Your task to perform on an android device: Open accessibility settings Image 0: 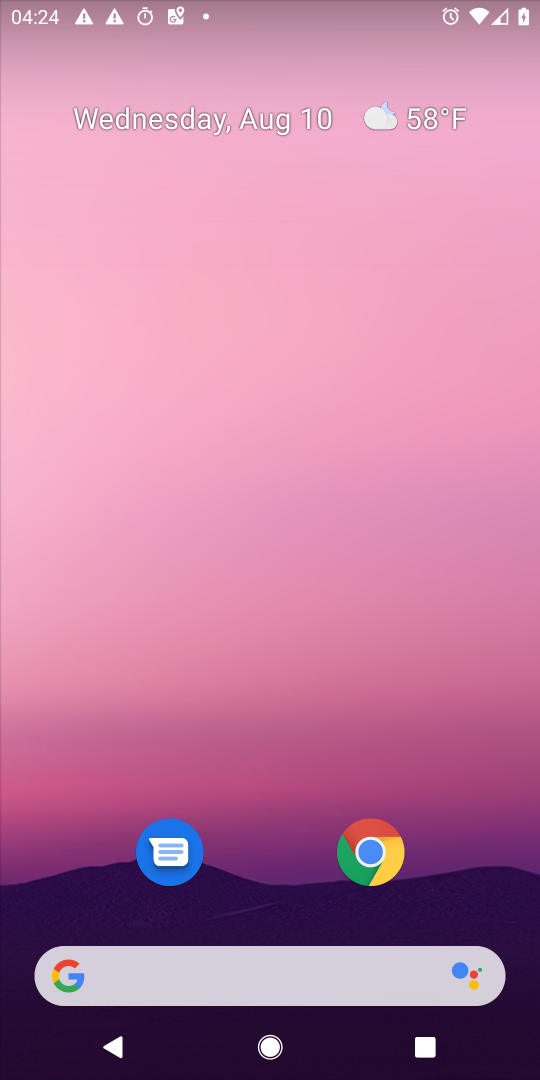
Step 0: drag from (248, 886) to (175, 155)
Your task to perform on an android device: Open accessibility settings Image 1: 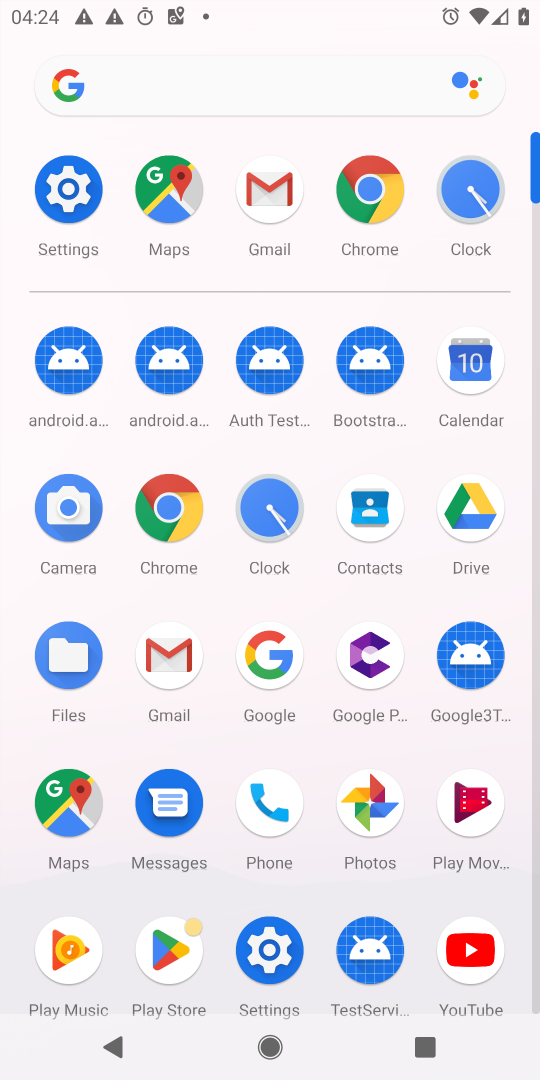
Step 1: click (268, 943)
Your task to perform on an android device: Open accessibility settings Image 2: 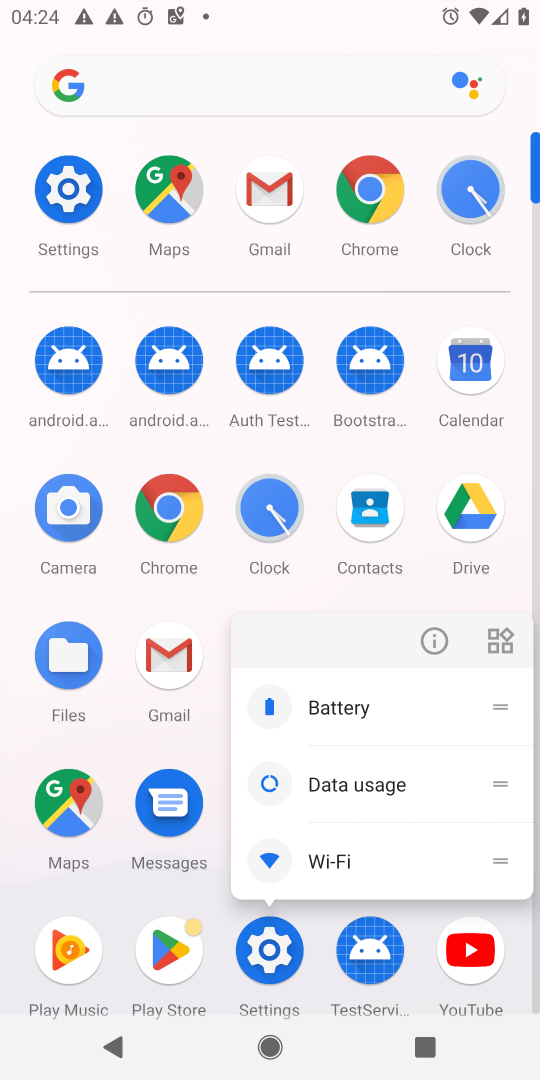
Step 2: click (268, 943)
Your task to perform on an android device: Open accessibility settings Image 3: 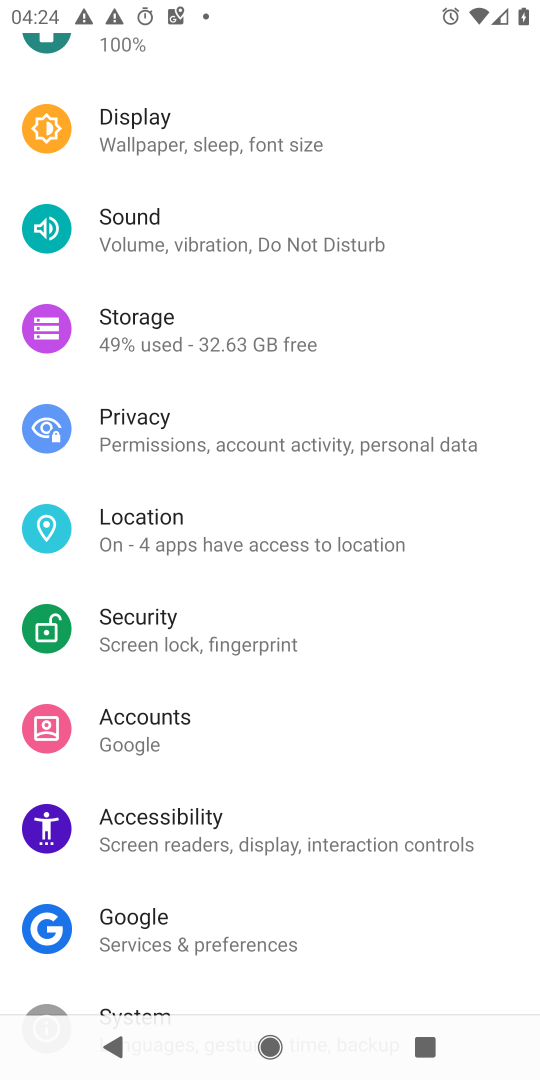
Step 3: click (214, 807)
Your task to perform on an android device: Open accessibility settings Image 4: 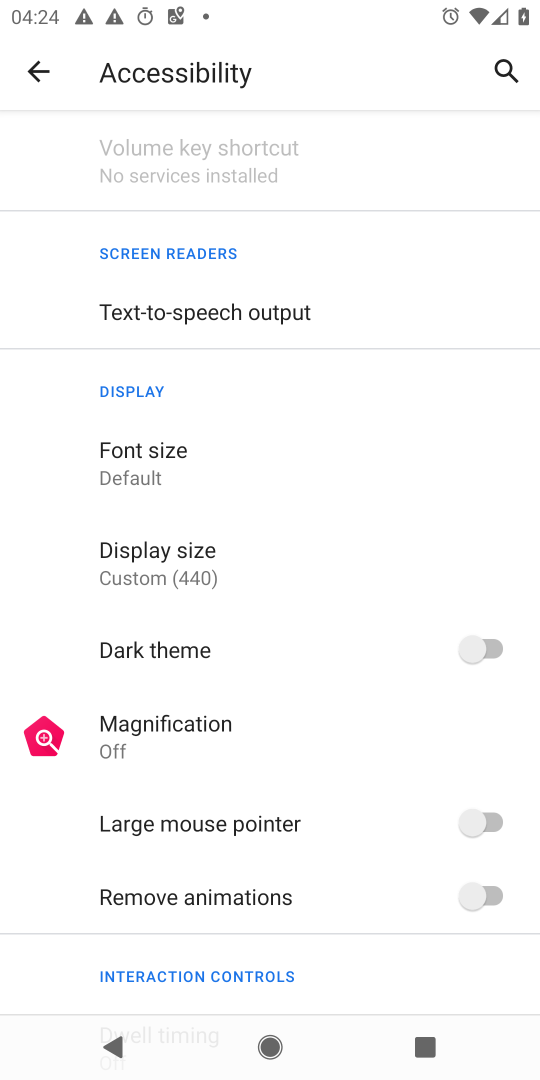
Step 4: task complete